Your task to perform on an android device: Go to privacy settings Image 0: 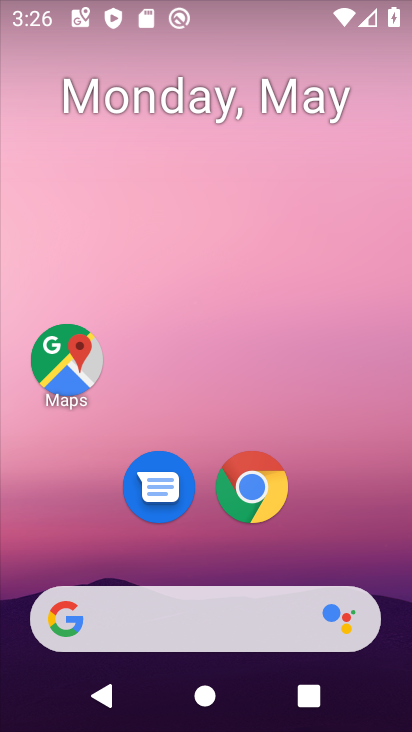
Step 0: drag from (195, 575) to (229, 220)
Your task to perform on an android device: Go to privacy settings Image 1: 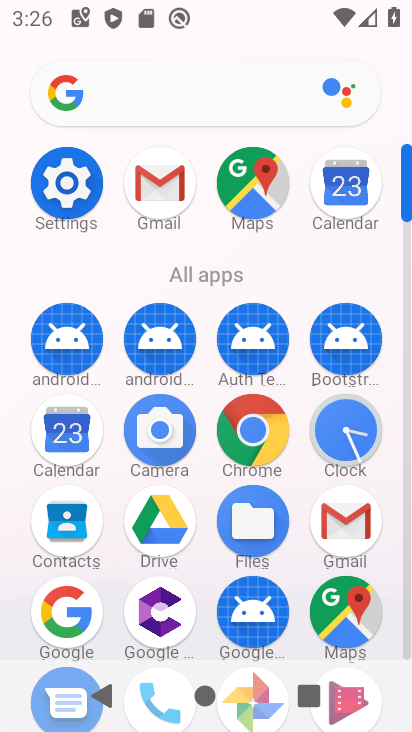
Step 1: click (69, 175)
Your task to perform on an android device: Go to privacy settings Image 2: 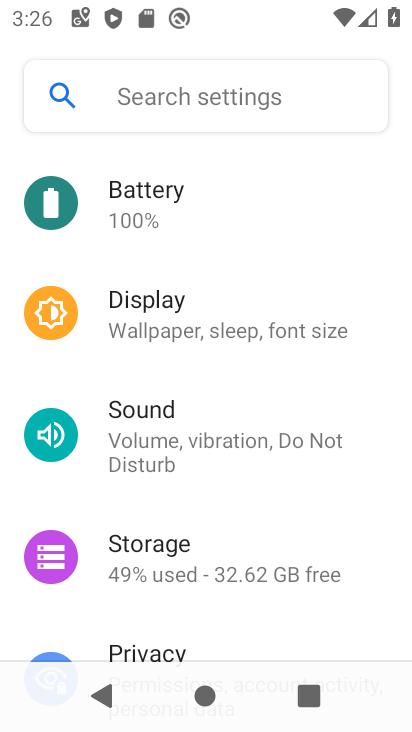
Step 2: drag from (207, 614) to (235, 259)
Your task to perform on an android device: Go to privacy settings Image 3: 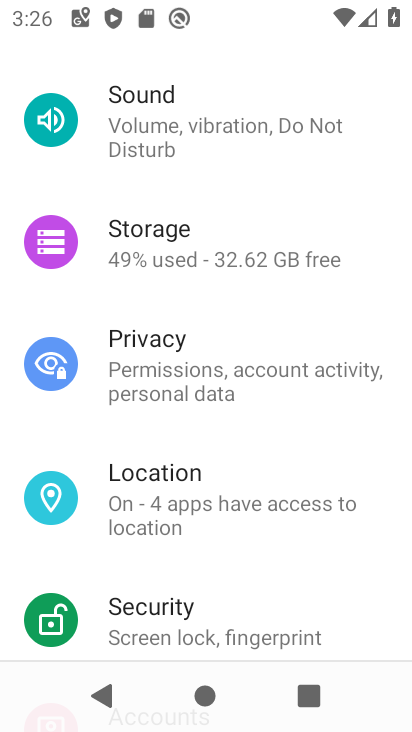
Step 3: click (201, 358)
Your task to perform on an android device: Go to privacy settings Image 4: 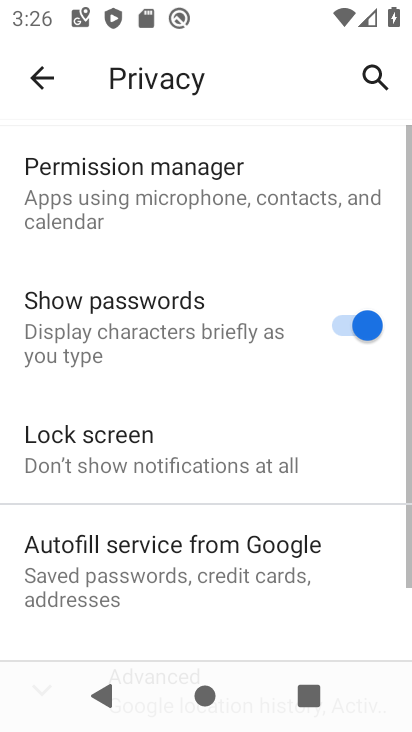
Step 4: drag from (154, 526) to (185, 166)
Your task to perform on an android device: Go to privacy settings Image 5: 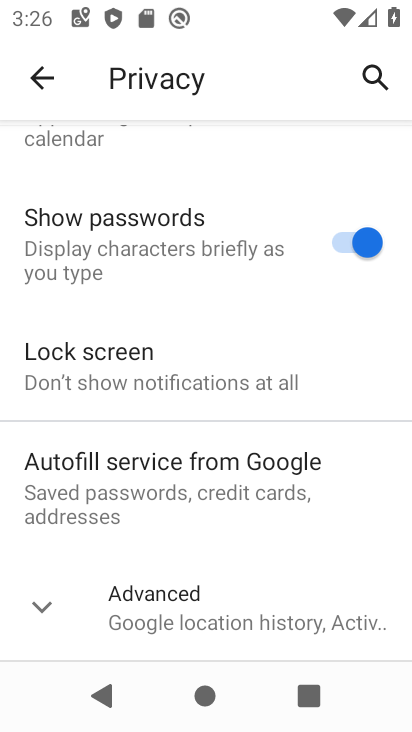
Step 5: click (193, 602)
Your task to perform on an android device: Go to privacy settings Image 6: 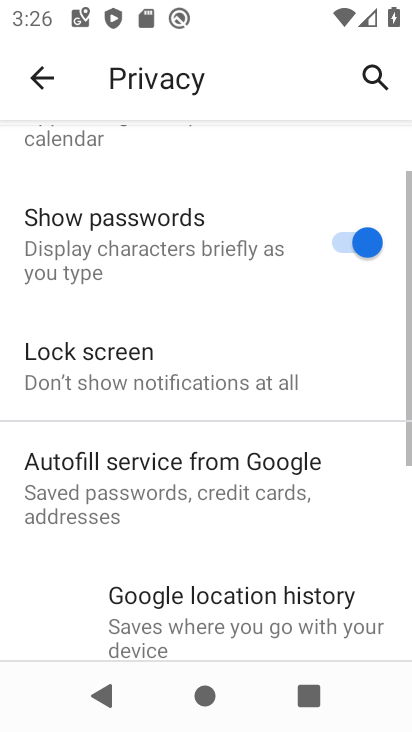
Step 6: task complete